Your task to perform on an android device: See recent photos Image 0: 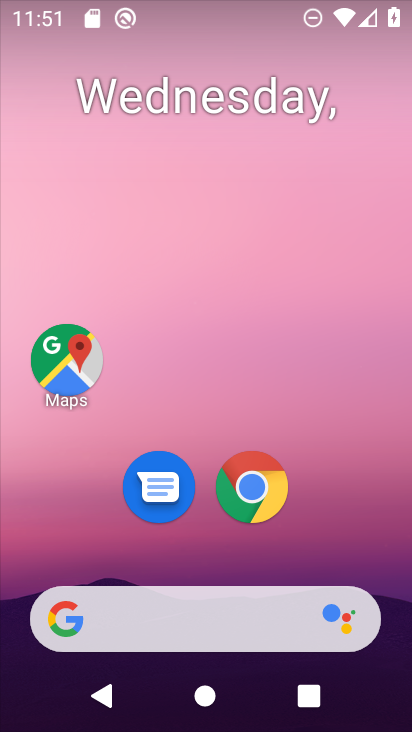
Step 0: drag from (321, 482) to (234, 78)
Your task to perform on an android device: See recent photos Image 1: 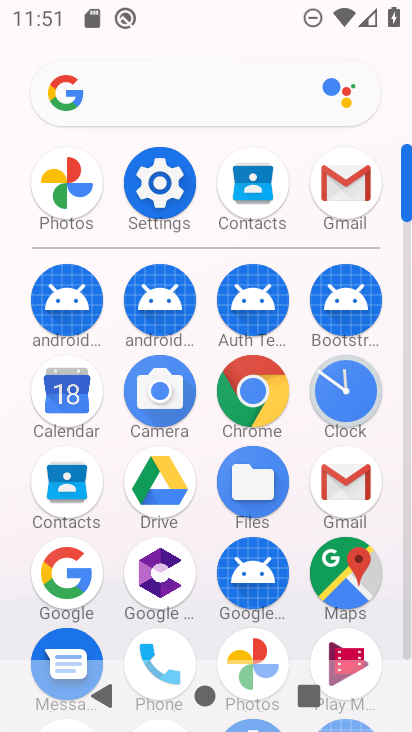
Step 1: click (76, 188)
Your task to perform on an android device: See recent photos Image 2: 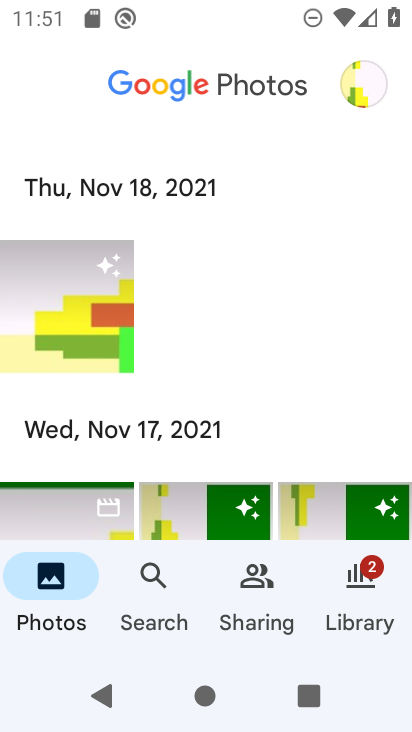
Step 2: task complete